Your task to perform on an android device: turn on the 12-hour format for clock Image 0: 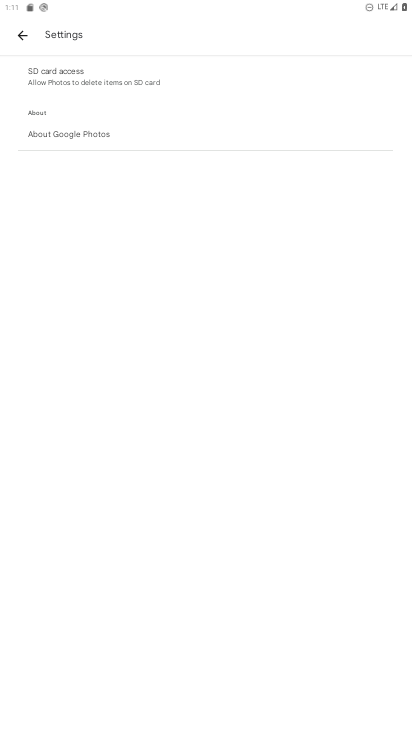
Step 0: press home button
Your task to perform on an android device: turn on the 12-hour format for clock Image 1: 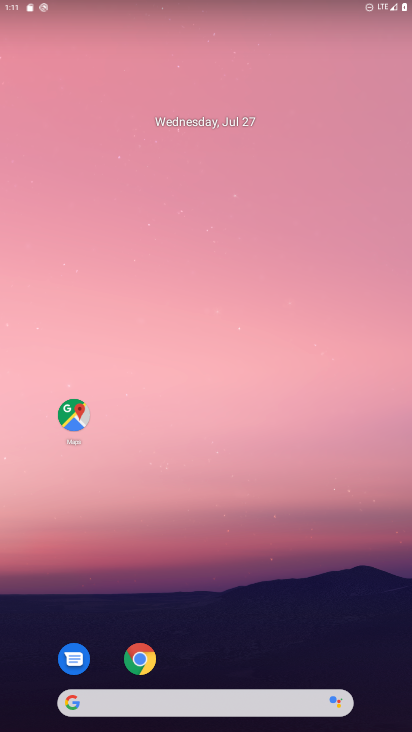
Step 1: drag from (249, 605) to (323, 90)
Your task to perform on an android device: turn on the 12-hour format for clock Image 2: 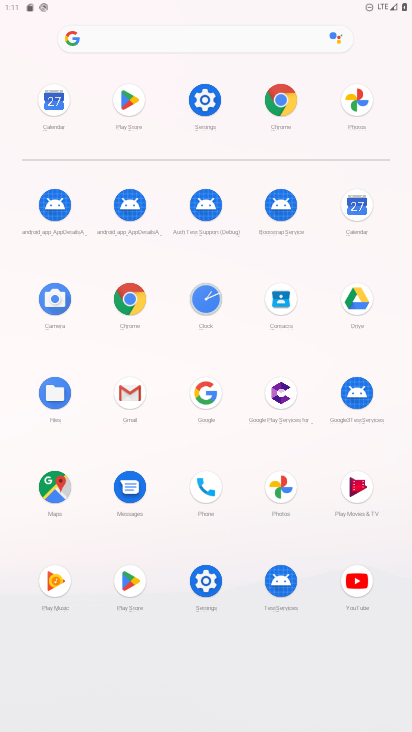
Step 2: click (203, 315)
Your task to perform on an android device: turn on the 12-hour format for clock Image 3: 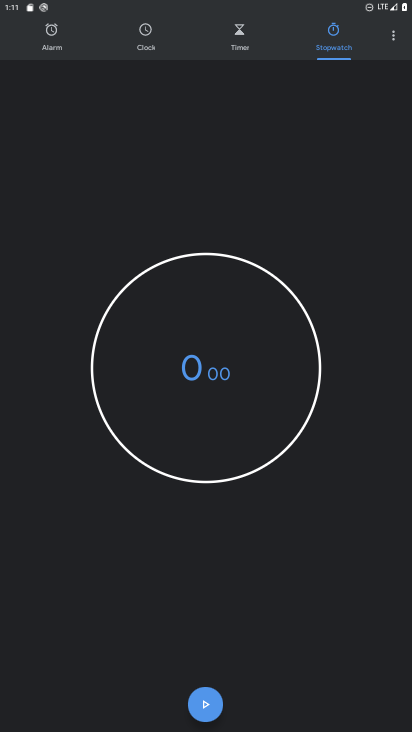
Step 3: click (147, 36)
Your task to perform on an android device: turn on the 12-hour format for clock Image 4: 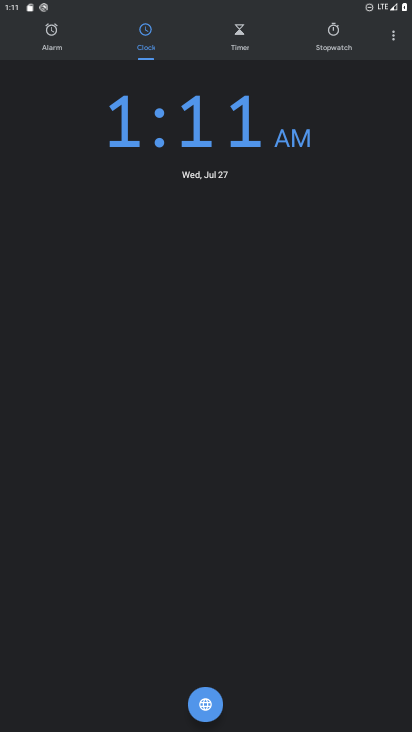
Step 4: click (391, 39)
Your task to perform on an android device: turn on the 12-hour format for clock Image 5: 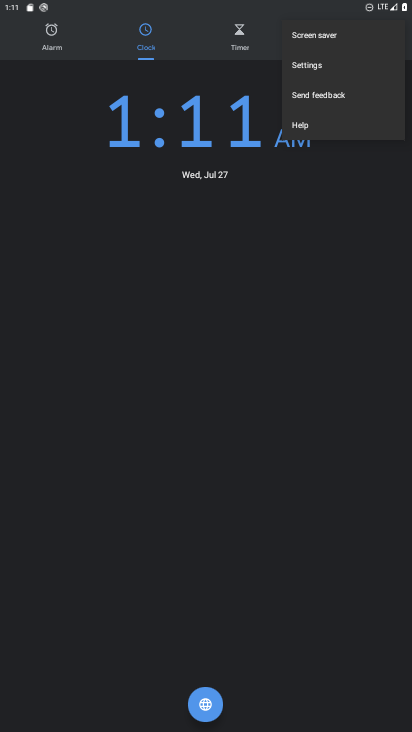
Step 5: click (321, 74)
Your task to perform on an android device: turn on the 12-hour format for clock Image 6: 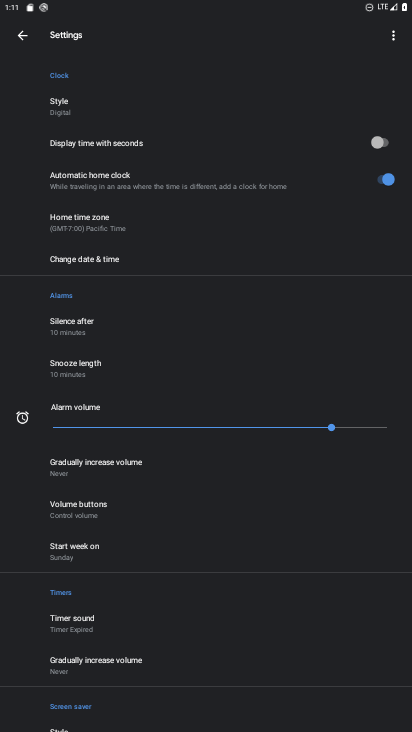
Step 6: drag from (171, 359) to (205, 109)
Your task to perform on an android device: turn on the 12-hour format for clock Image 7: 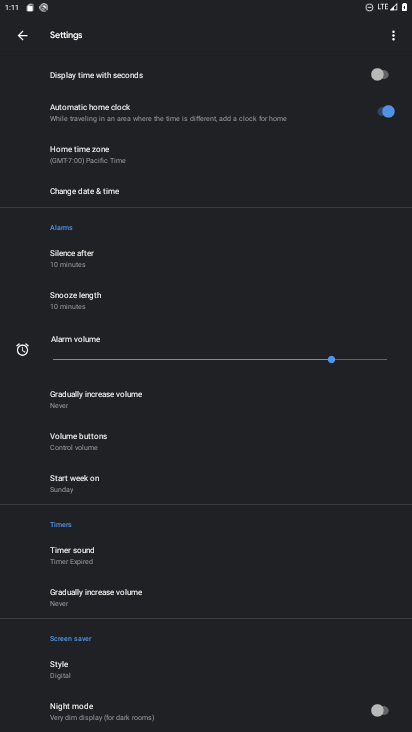
Step 7: drag from (143, 695) to (252, 362)
Your task to perform on an android device: turn on the 12-hour format for clock Image 8: 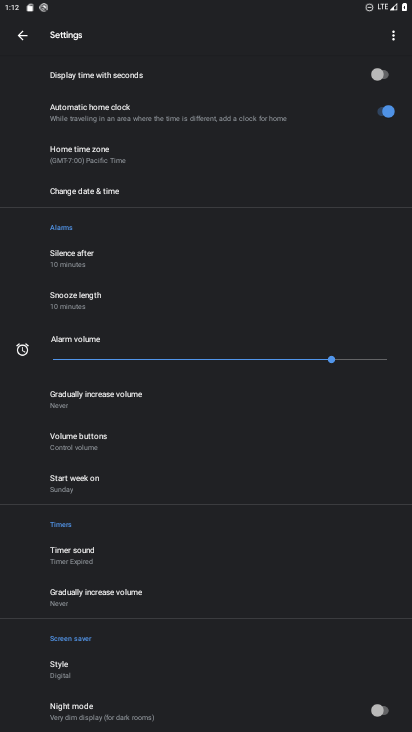
Step 8: drag from (243, 269) to (48, 726)
Your task to perform on an android device: turn on the 12-hour format for clock Image 9: 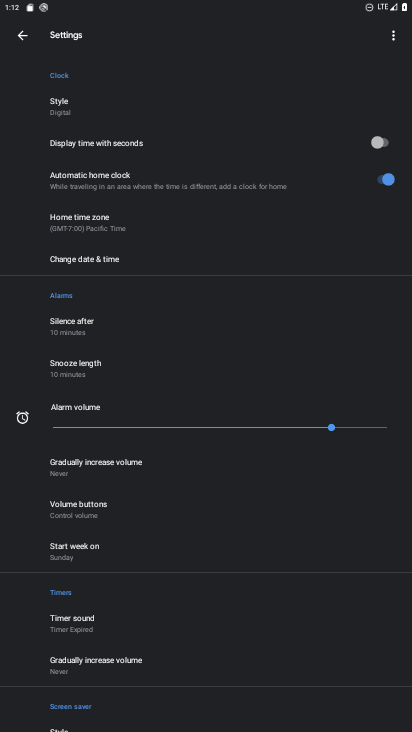
Step 9: drag from (240, 196) to (219, 701)
Your task to perform on an android device: turn on the 12-hour format for clock Image 10: 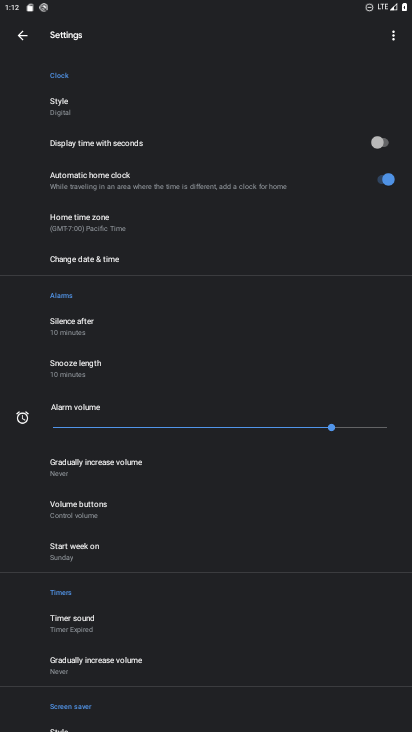
Step 10: drag from (214, 245) to (214, 564)
Your task to perform on an android device: turn on the 12-hour format for clock Image 11: 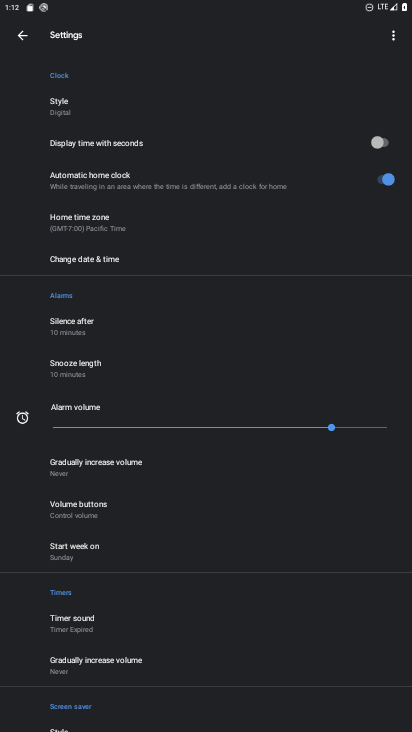
Step 11: click (119, 107)
Your task to perform on an android device: turn on the 12-hour format for clock Image 12: 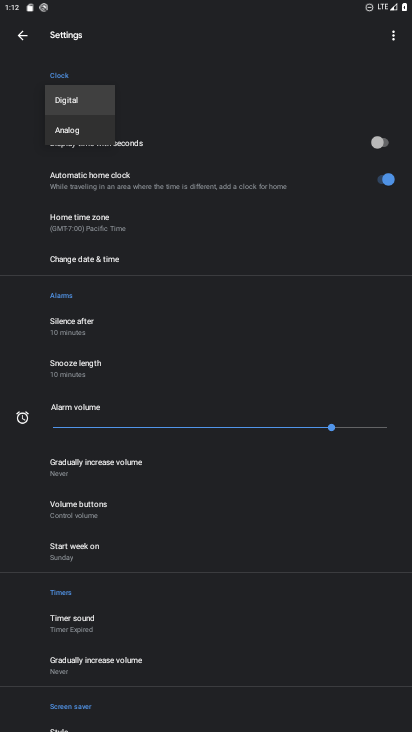
Step 12: click (189, 107)
Your task to perform on an android device: turn on the 12-hour format for clock Image 13: 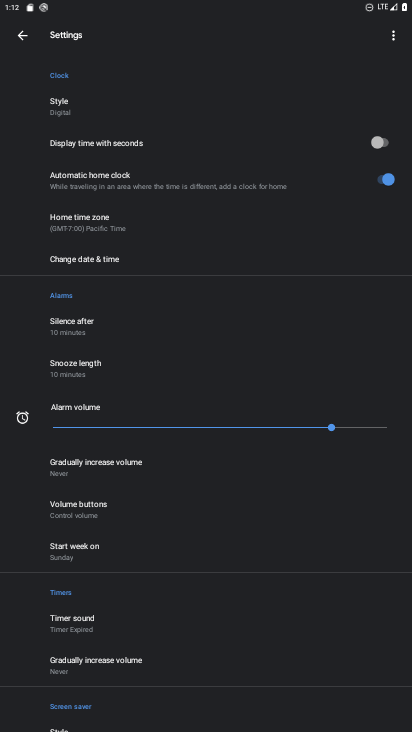
Step 13: click (393, 40)
Your task to perform on an android device: turn on the 12-hour format for clock Image 14: 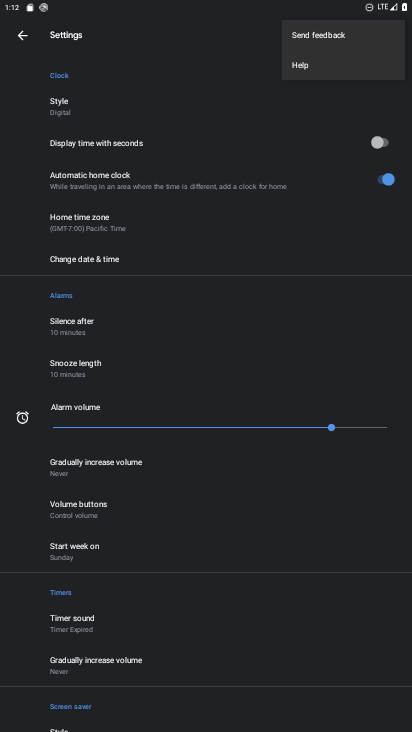
Step 14: click (24, 34)
Your task to perform on an android device: turn on the 12-hour format for clock Image 15: 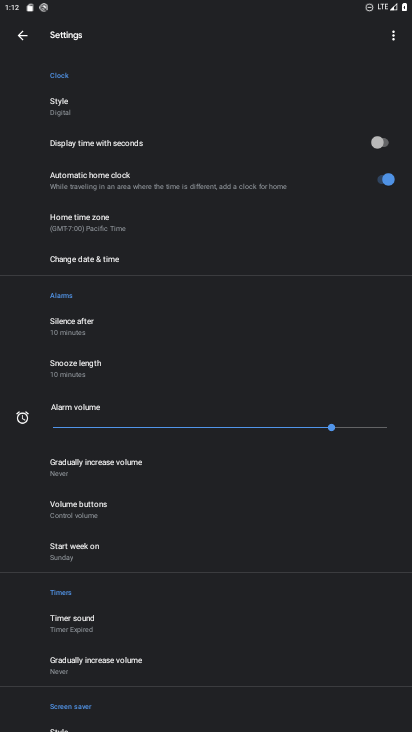
Step 15: click (23, 37)
Your task to perform on an android device: turn on the 12-hour format for clock Image 16: 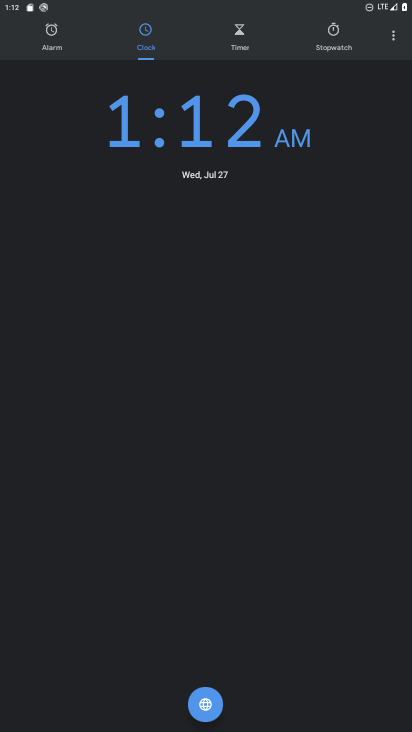
Step 16: click (394, 36)
Your task to perform on an android device: turn on the 12-hour format for clock Image 17: 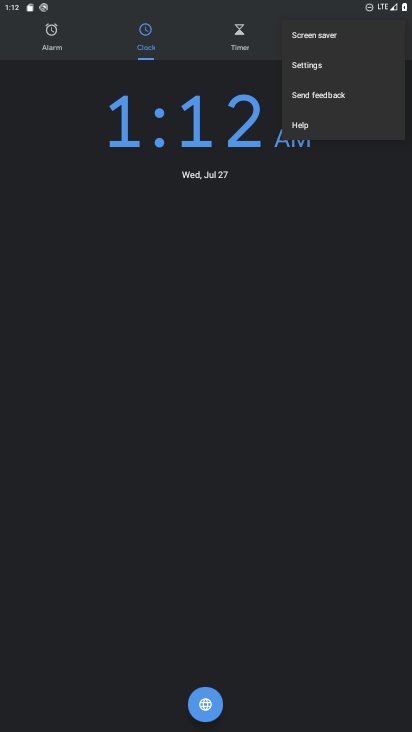
Step 17: press home button
Your task to perform on an android device: turn on the 12-hour format for clock Image 18: 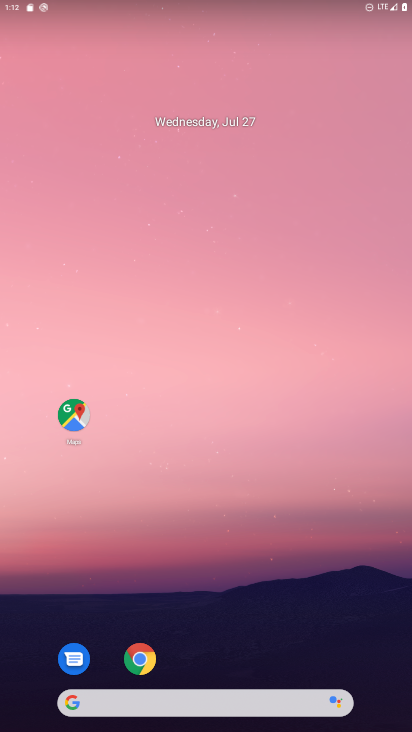
Step 18: drag from (287, 642) to (411, 16)
Your task to perform on an android device: turn on the 12-hour format for clock Image 19: 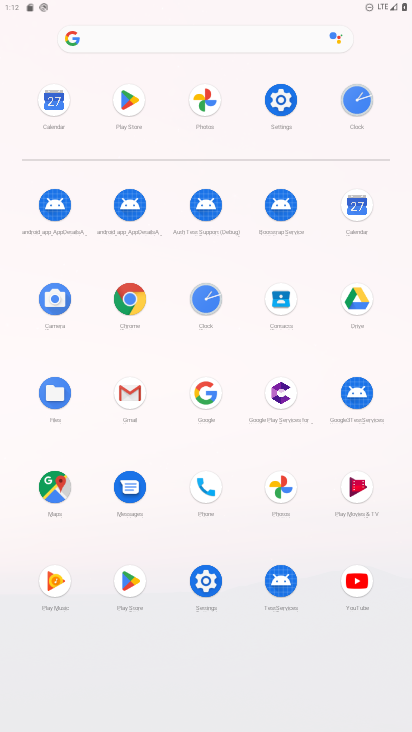
Step 19: click (207, 580)
Your task to perform on an android device: turn on the 12-hour format for clock Image 20: 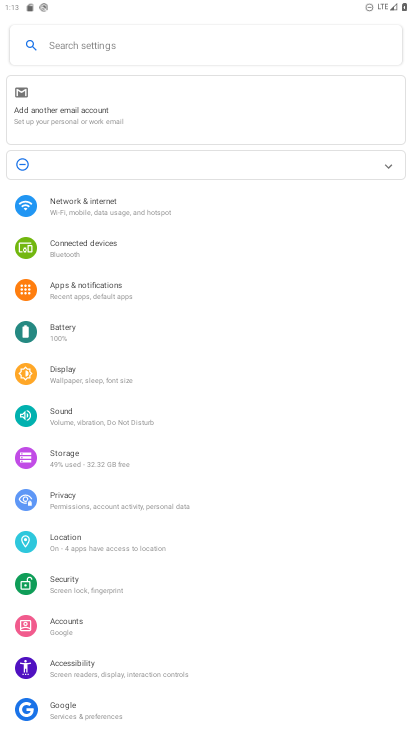
Step 20: drag from (165, 603) to (190, 34)
Your task to perform on an android device: turn on the 12-hour format for clock Image 21: 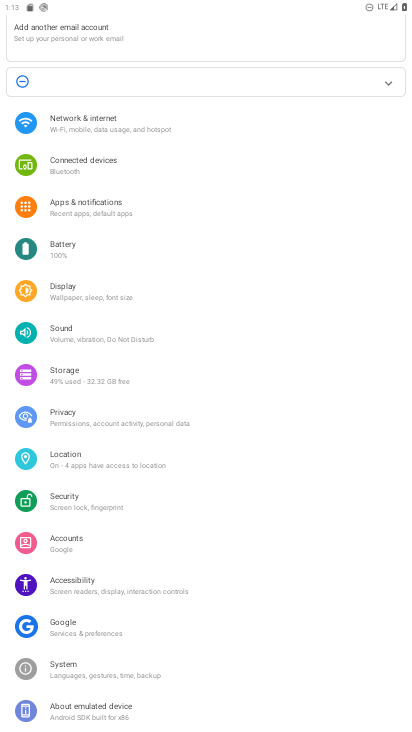
Step 21: drag from (239, 566) to (246, 450)
Your task to perform on an android device: turn on the 12-hour format for clock Image 22: 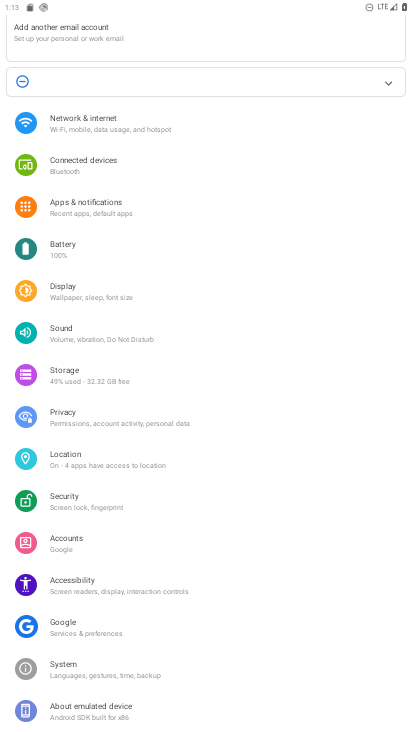
Step 22: drag from (212, 725) to (260, 466)
Your task to perform on an android device: turn on the 12-hour format for clock Image 23: 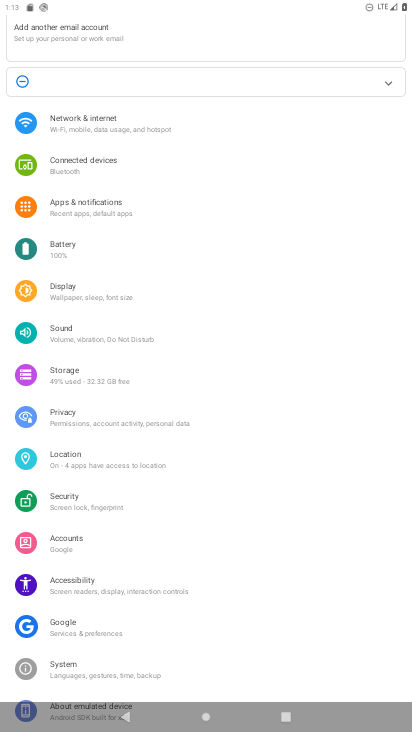
Step 23: click (291, 712)
Your task to perform on an android device: turn on the 12-hour format for clock Image 24: 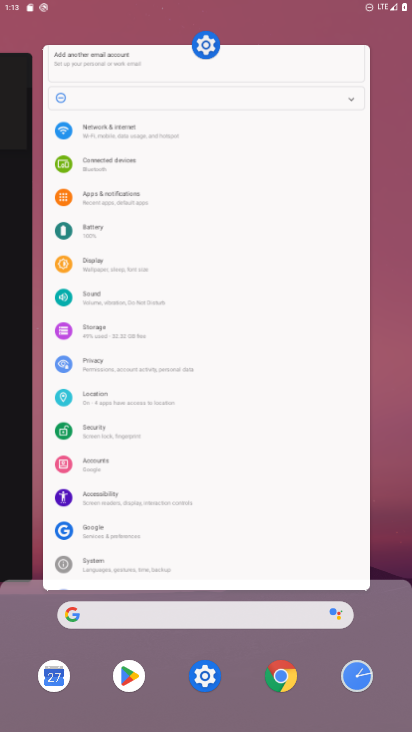
Step 24: drag from (134, 391) to (390, 446)
Your task to perform on an android device: turn on the 12-hour format for clock Image 25: 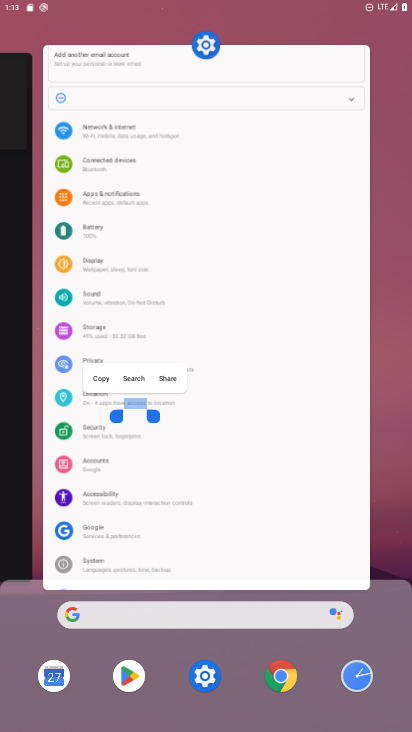
Step 25: drag from (155, 459) to (371, 496)
Your task to perform on an android device: turn on the 12-hour format for clock Image 26: 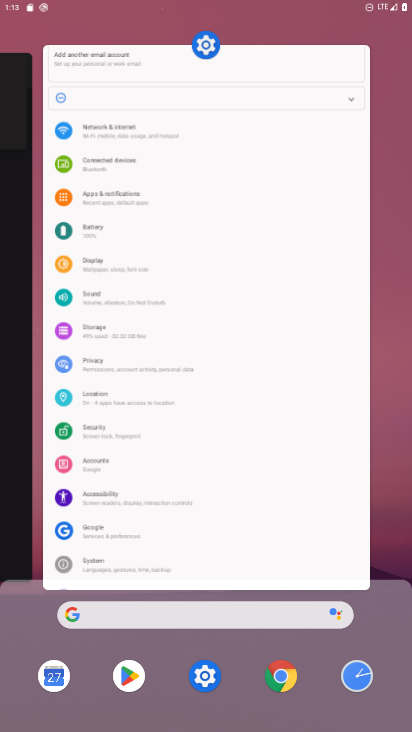
Step 26: drag from (19, 420) to (408, 451)
Your task to perform on an android device: turn on the 12-hour format for clock Image 27: 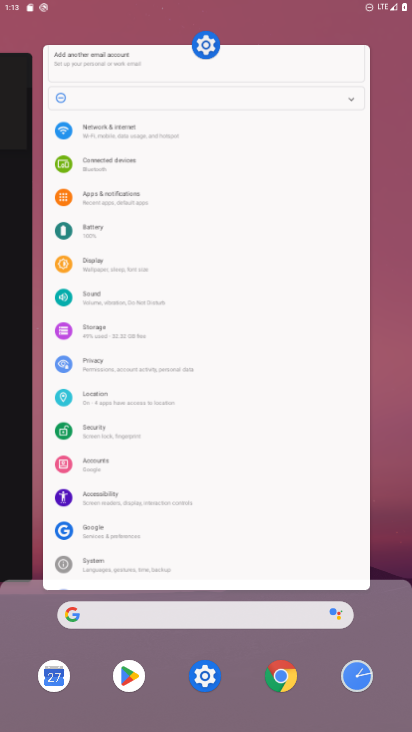
Step 27: click (15, 401)
Your task to perform on an android device: turn on the 12-hour format for clock Image 28: 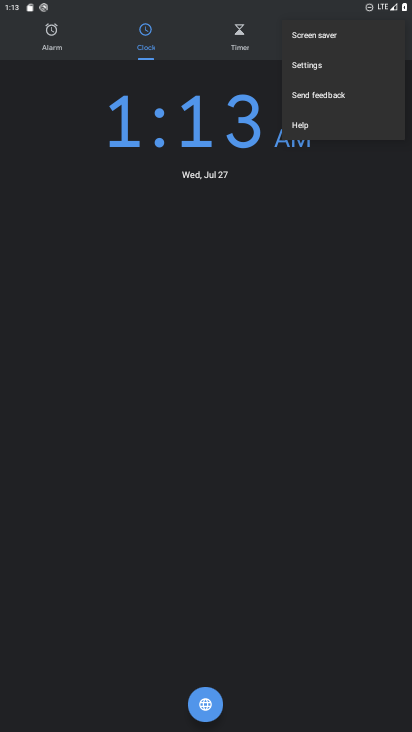
Step 28: click (285, 347)
Your task to perform on an android device: turn on the 12-hour format for clock Image 29: 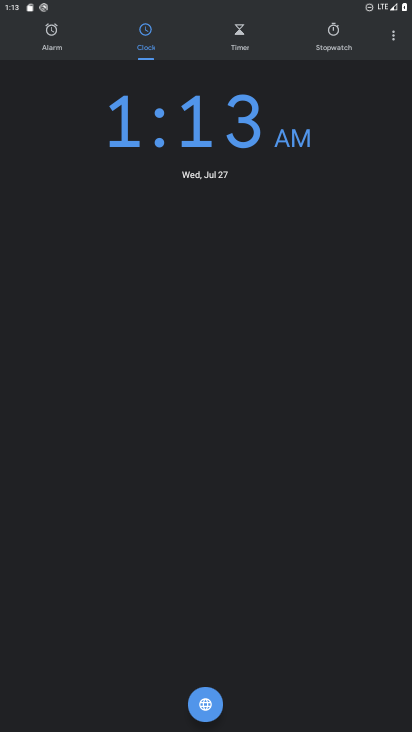
Step 29: click (395, 36)
Your task to perform on an android device: turn on the 12-hour format for clock Image 30: 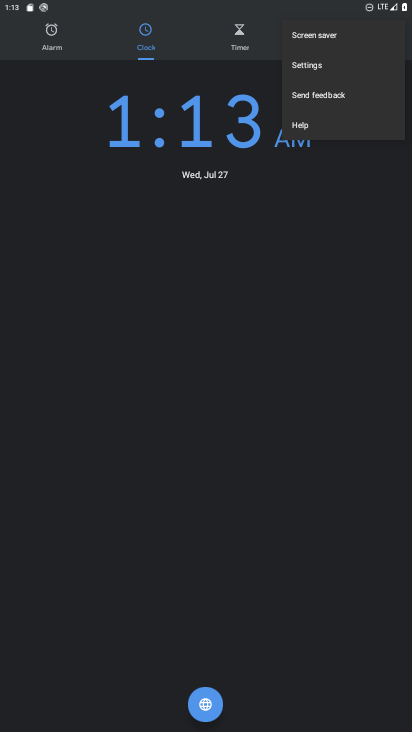
Step 30: click (341, 68)
Your task to perform on an android device: turn on the 12-hour format for clock Image 31: 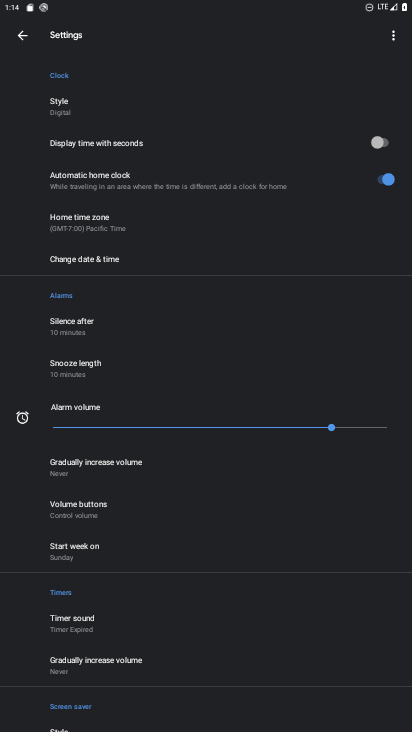
Step 31: task complete